Your task to perform on an android device: Add "razer blade" to the cart on costco.com, then select checkout. Image 0: 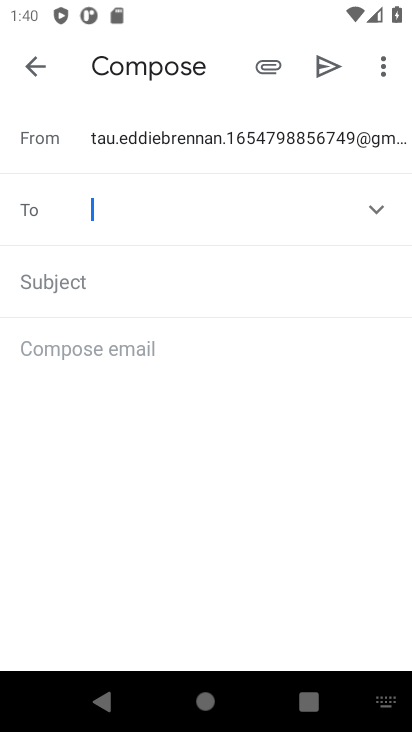
Step 0: click (256, 525)
Your task to perform on an android device: Add "razer blade" to the cart on costco.com, then select checkout. Image 1: 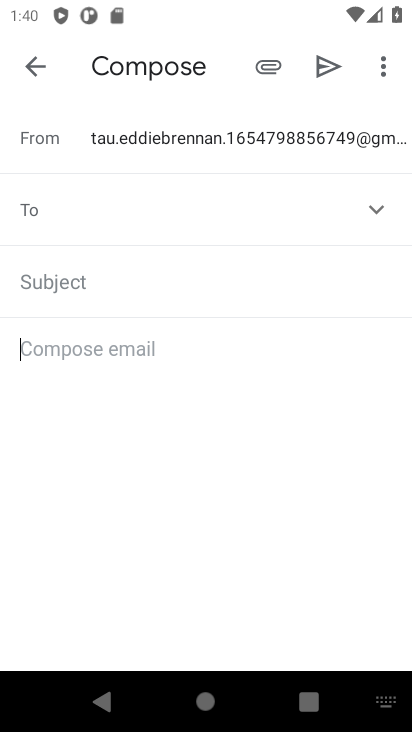
Step 1: press home button
Your task to perform on an android device: Add "razer blade" to the cart on costco.com, then select checkout. Image 2: 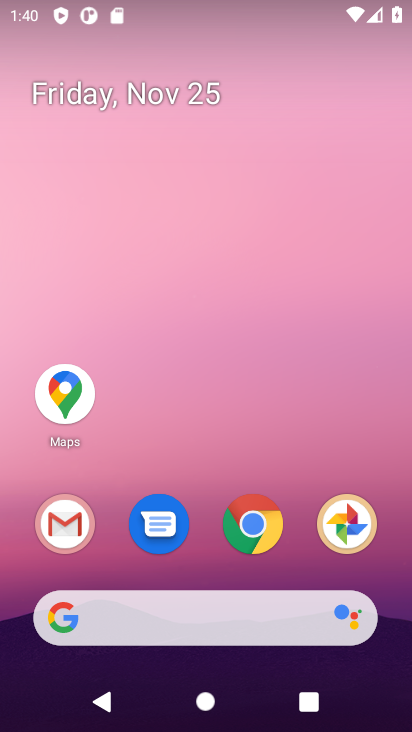
Step 2: click (258, 531)
Your task to perform on an android device: Add "razer blade" to the cart on costco.com, then select checkout. Image 3: 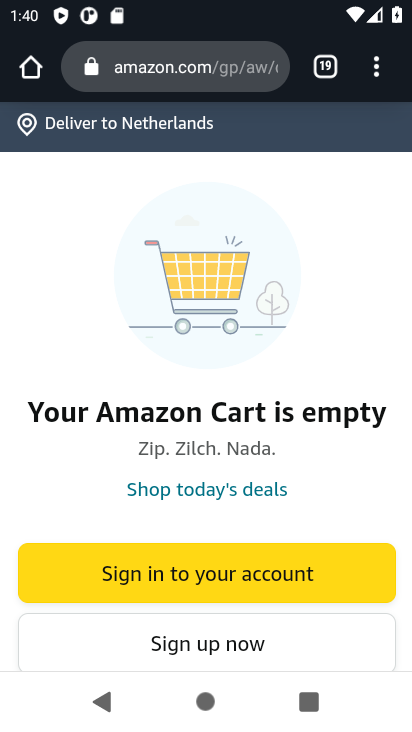
Step 3: click (144, 75)
Your task to perform on an android device: Add "razer blade" to the cart on costco.com, then select checkout. Image 4: 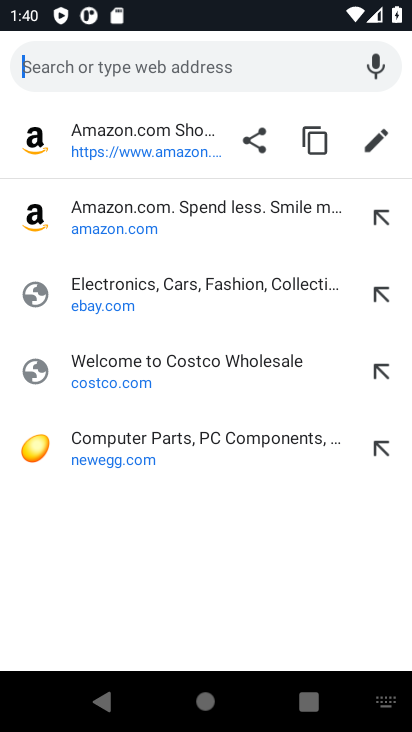
Step 4: click (99, 375)
Your task to perform on an android device: Add "razer blade" to the cart on costco.com, then select checkout. Image 5: 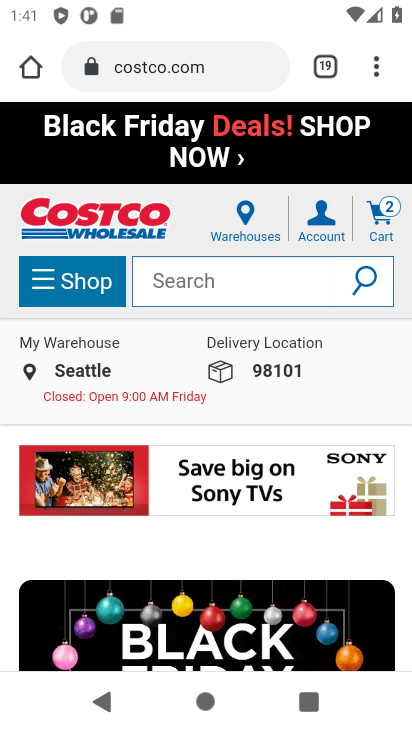
Step 5: click (183, 281)
Your task to perform on an android device: Add "razer blade" to the cart on costco.com, then select checkout. Image 6: 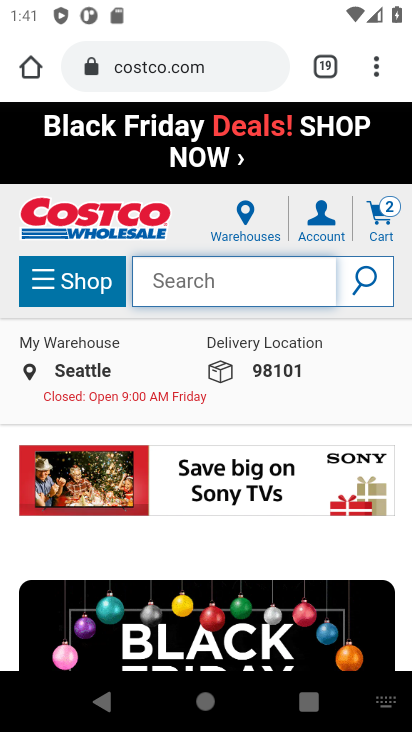
Step 6: type "razer blade"
Your task to perform on an android device: Add "razer blade" to the cart on costco.com, then select checkout. Image 7: 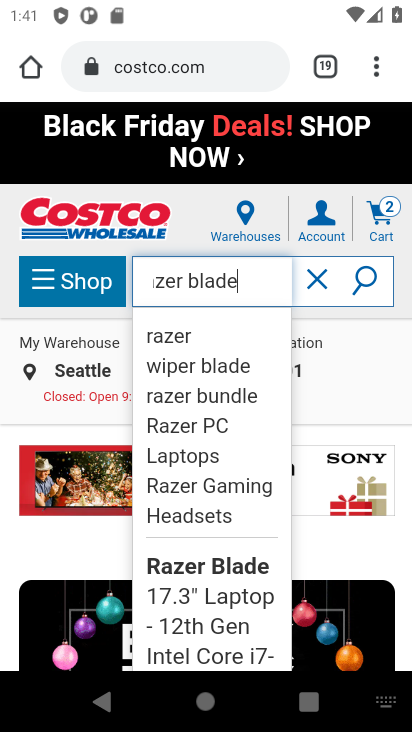
Step 7: click (358, 282)
Your task to perform on an android device: Add "razer blade" to the cart on costco.com, then select checkout. Image 8: 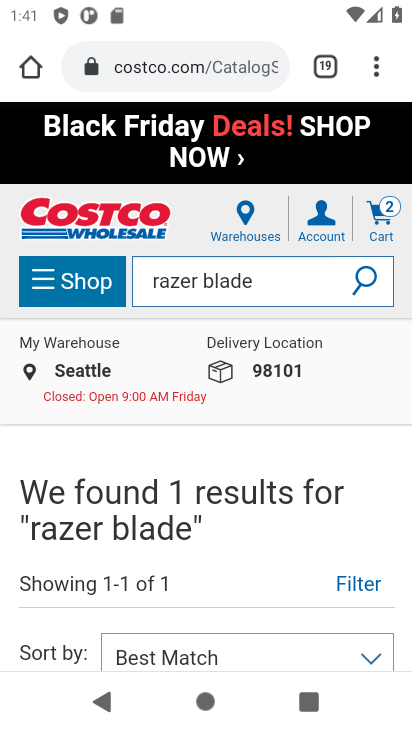
Step 8: click (164, 471)
Your task to perform on an android device: Add "razer blade" to the cart on costco.com, then select checkout. Image 9: 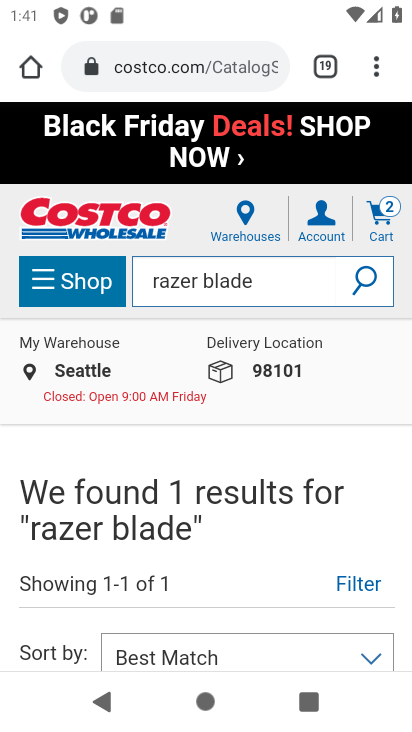
Step 9: drag from (206, 557) to (235, 245)
Your task to perform on an android device: Add "razer blade" to the cart on costco.com, then select checkout. Image 10: 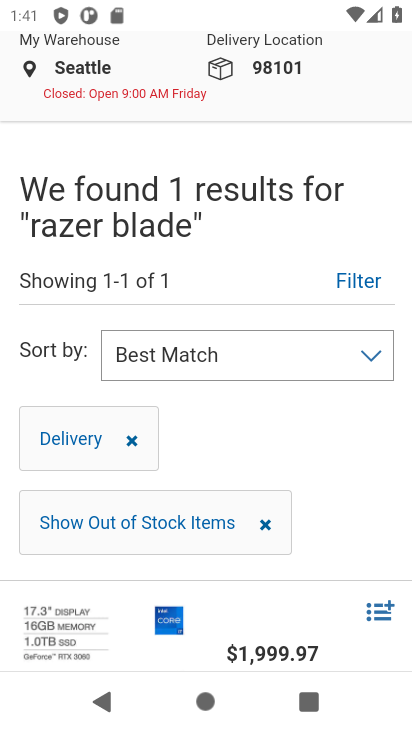
Step 10: drag from (202, 428) to (209, 179)
Your task to perform on an android device: Add "razer blade" to the cart on costco.com, then select checkout. Image 11: 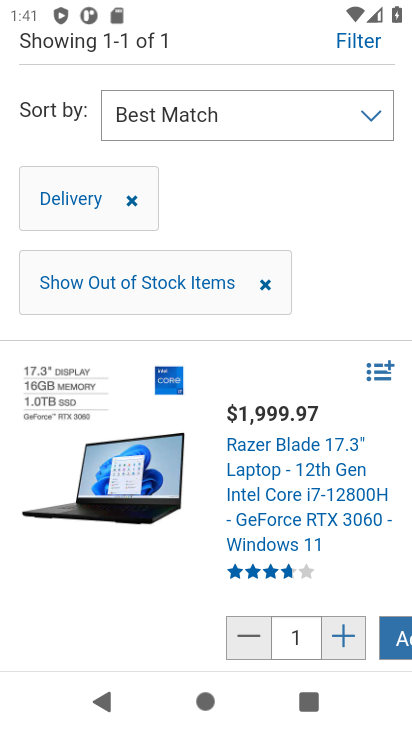
Step 11: click (391, 641)
Your task to perform on an android device: Add "razer blade" to the cart on costco.com, then select checkout. Image 12: 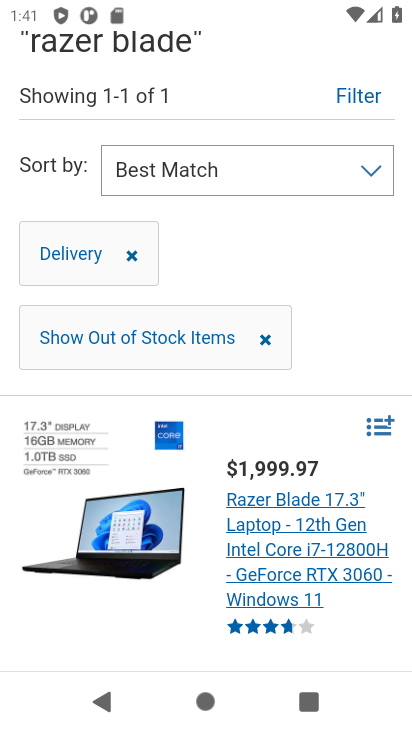
Step 12: drag from (295, 261) to (274, 573)
Your task to perform on an android device: Add "razer blade" to the cart on costco.com, then select checkout. Image 13: 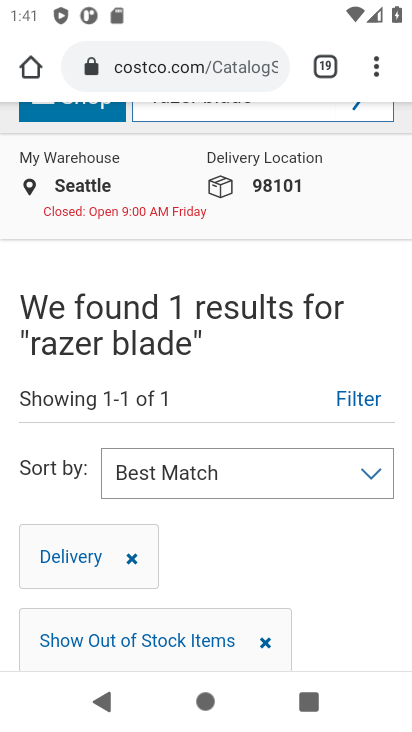
Step 13: drag from (321, 197) to (294, 474)
Your task to perform on an android device: Add "razer blade" to the cart on costco.com, then select checkout. Image 14: 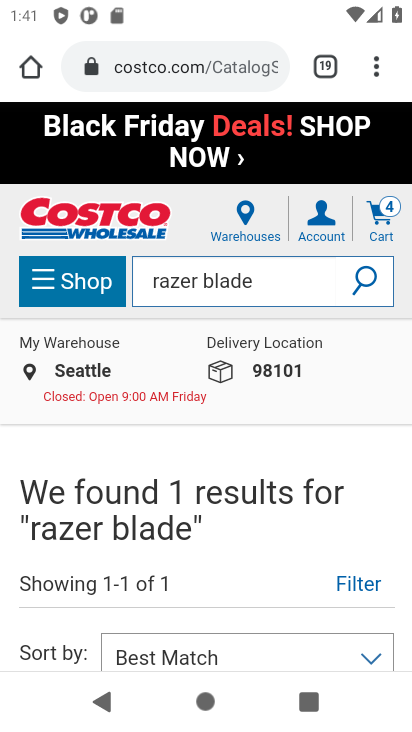
Step 14: click (381, 218)
Your task to perform on an android device: Add "razer blade" to the cart on costco.com, then select checkout. Image 15: 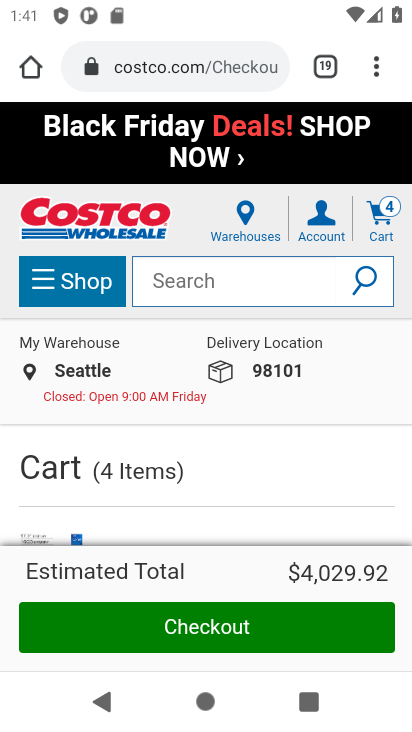
Step 15: click (183, 628)
Your task to perform on an android device: Add "razer blade" to the cart on costco.com, then select checkout. Image 16: 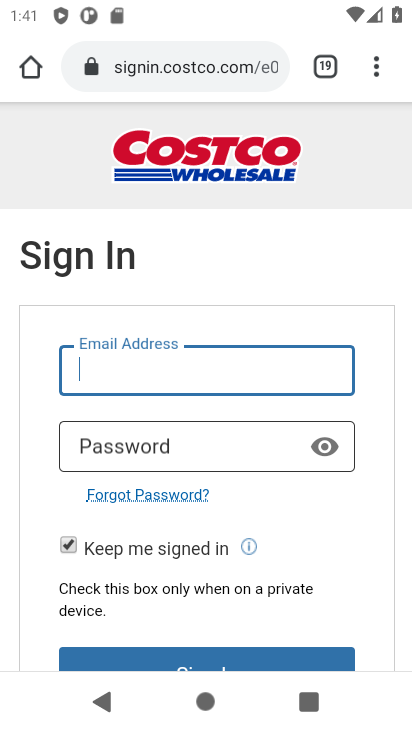
Step 16: task complete